Your task to perform on an android device: Open the stopwatch Image 0: 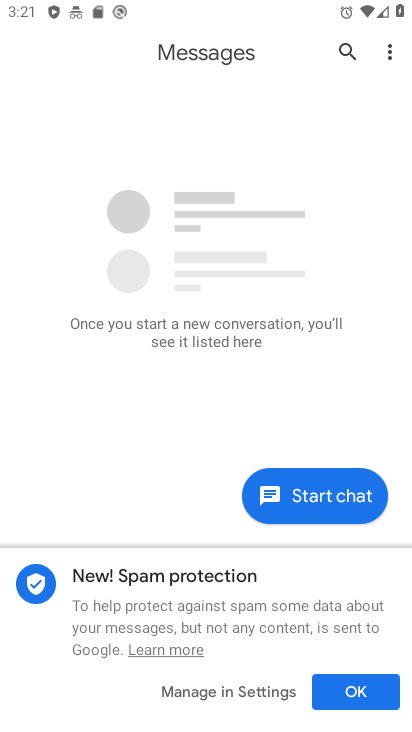
Step 0: press home button
Your task to perform on an android device: Open the stopwatch Image 1: 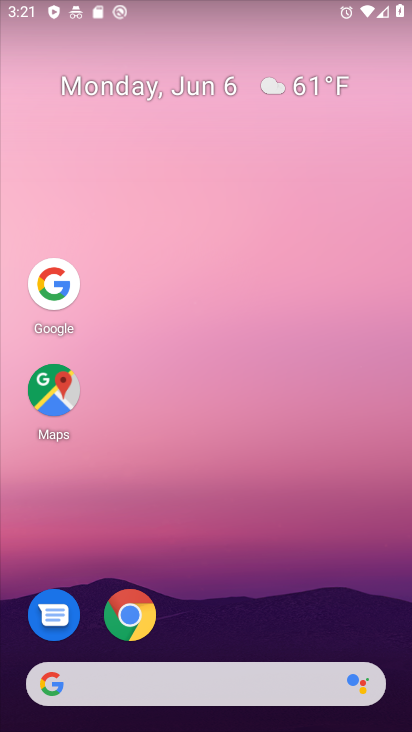
Step 1: drag from (290, 587) to (347, 165)
Your task to perform on an android device: Open the stopwatch Image 2: 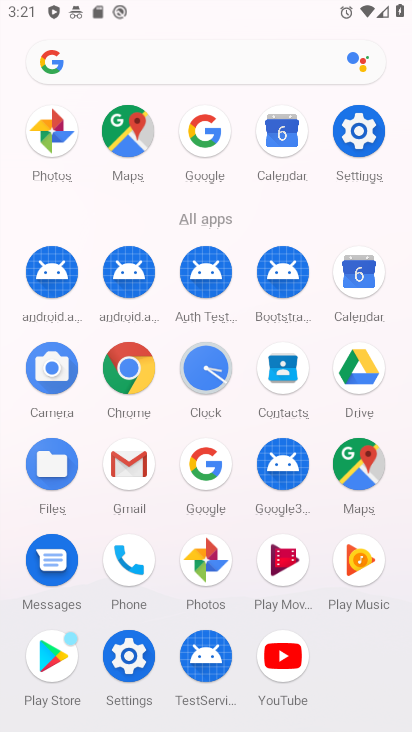
Step 2: click (224, 377)
Your task to perform on an android device: Open the stopwatch Image 3: 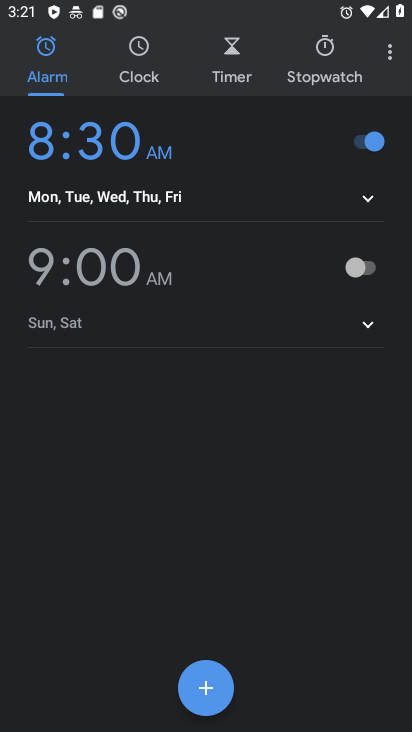
Step 3: click (325, 56)
Your task to perform on an android device: Open the stopwatch Image 4: 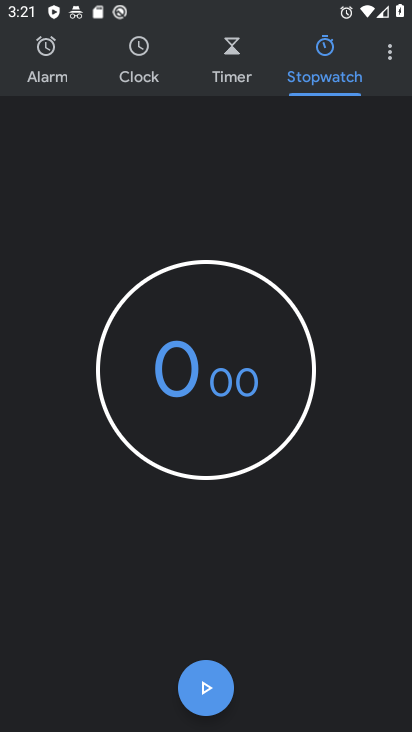
Step 4: task complete